Your task to perform on an android device: toggle translation in the chrome app Image 0: 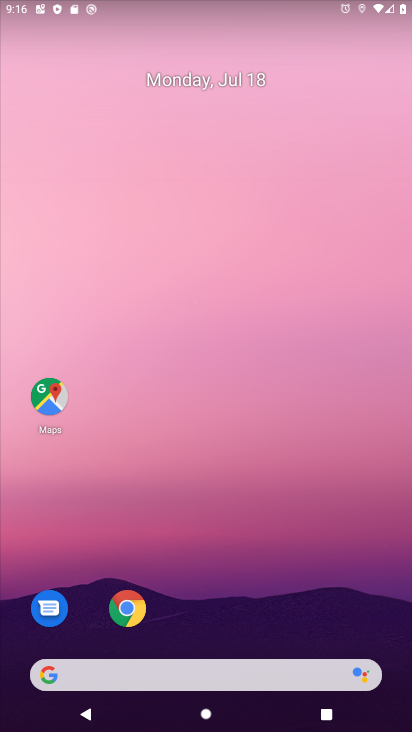
Step 0: click (123, 610)
Your task to perform on an android device: toggle translation in the chrome app Image 1: 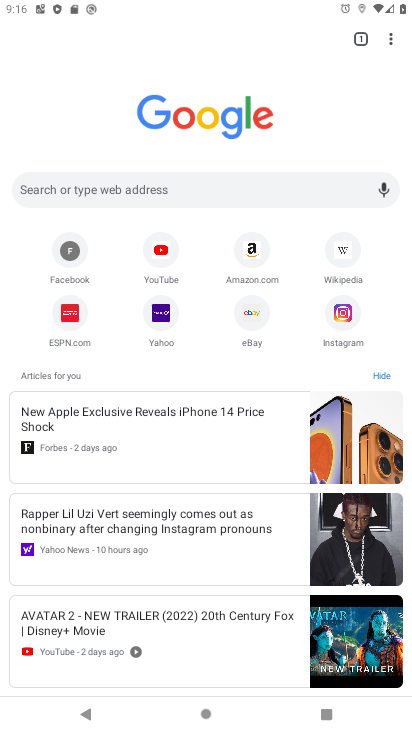
Step 1: click (392, 41)
Your task to perform on an android device: toggle translation in the chrome app Image 2: 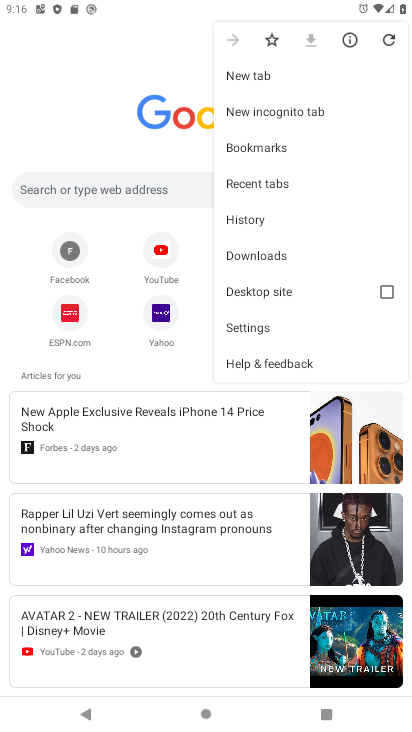
Step 2: click (251, 329)
Your task to perform on an android device: toggle translation in the chrome app Image 3: 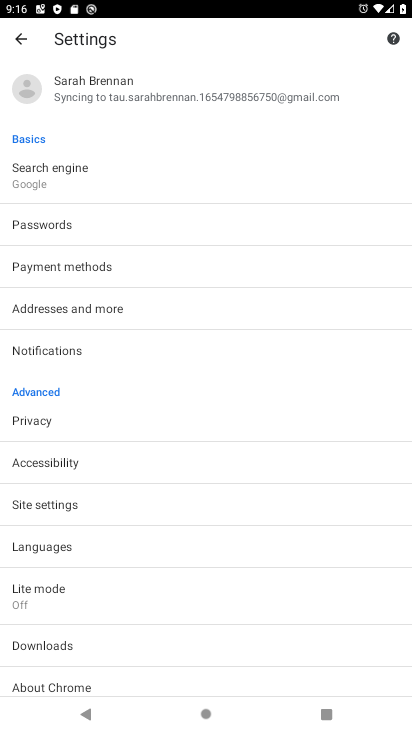
Step 3: click (63, 549)
Your task to perform on an android device: toggle translation in the chrome app Image 4: 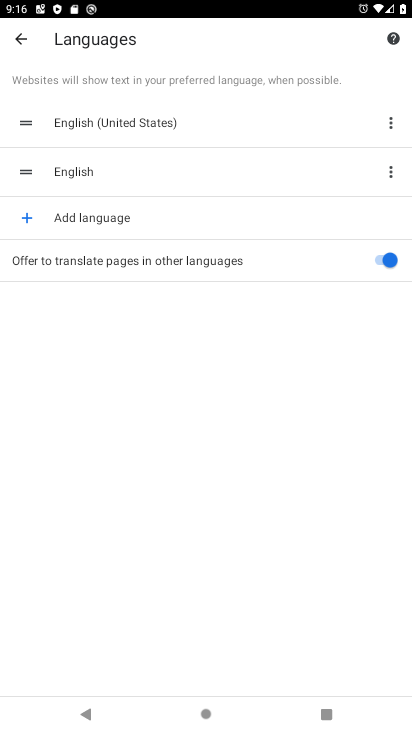
Step 4: task complete